Your task to perform on an android device: all mails in gmail Image 0: 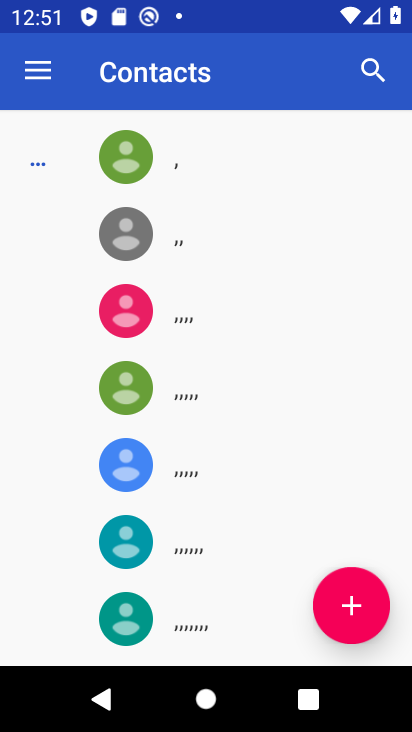
Step 0: press home button
Your task to perform on an android device: all mails in gmail Image 1: 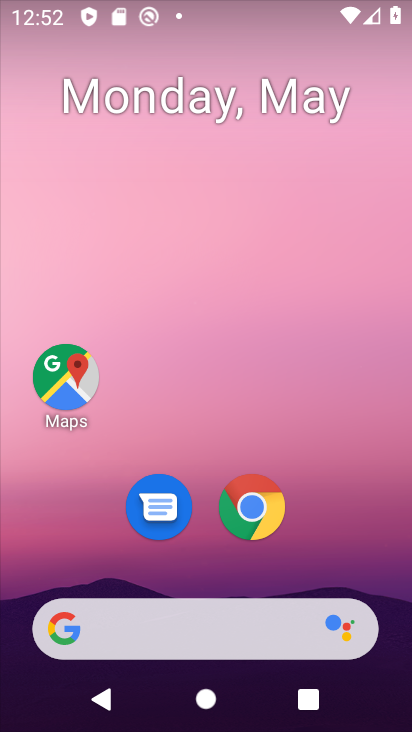
Step 1: drag from (346, 473) to (319, 71)
Your task to perform on an android device: all mails in gmail Image 2: 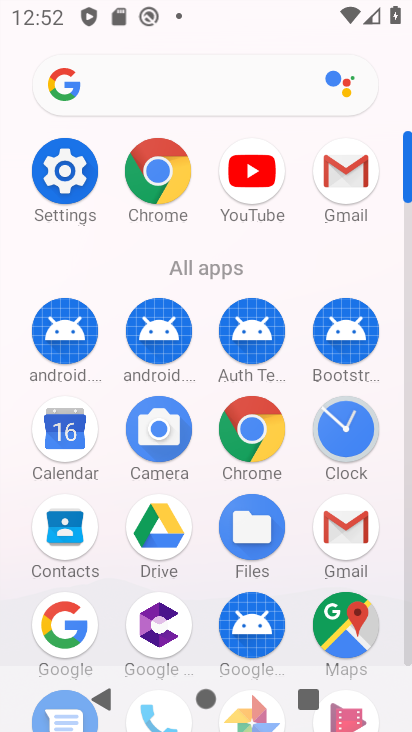
Step 2: click (343, 178)
Your task to perform on an android device: all mails in gmail Image 3: 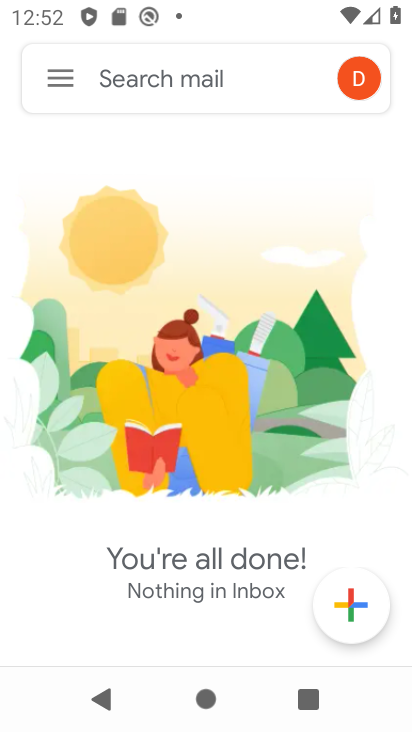
Step 3: click (66, 71)
Your task to perform on an android device: all mails in gmail Image 4: 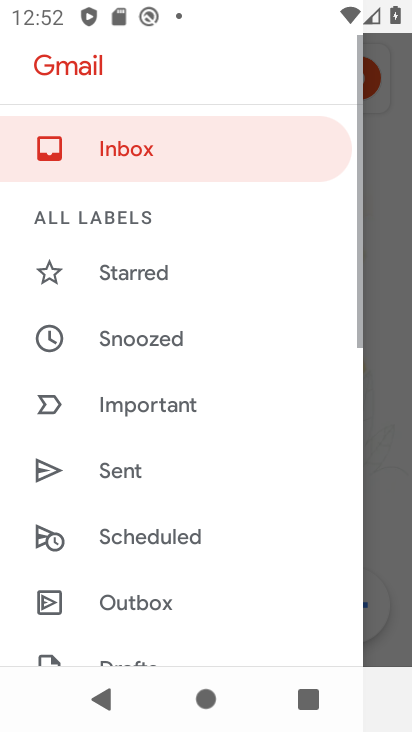
Step 4: drag from (151, 548) to (246, 158)
Your task to perform on an android device: all mails in gmail Image 5: 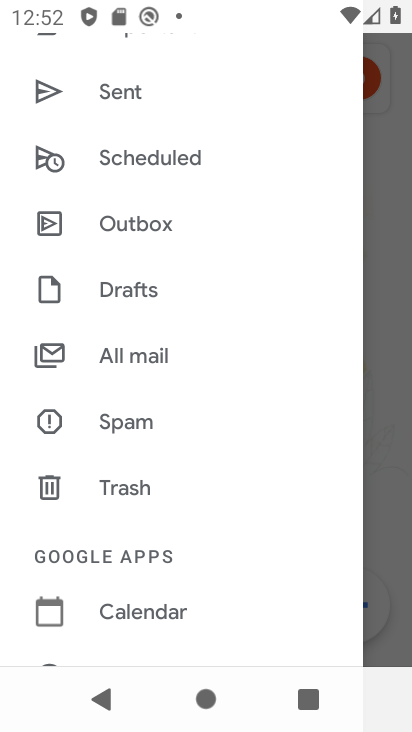
Step 5: click (135, 372)
Your task to perform on an android device: all mails in gmail Image 6: 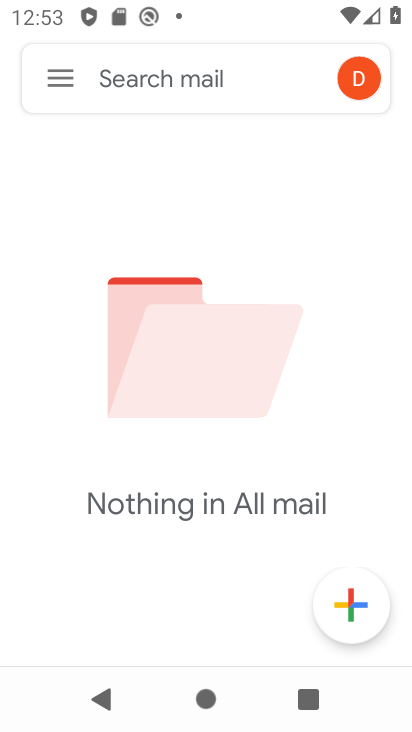
Step 6: task complete